Your task to perform on an android device: change your default location settings in chrome Image 0: 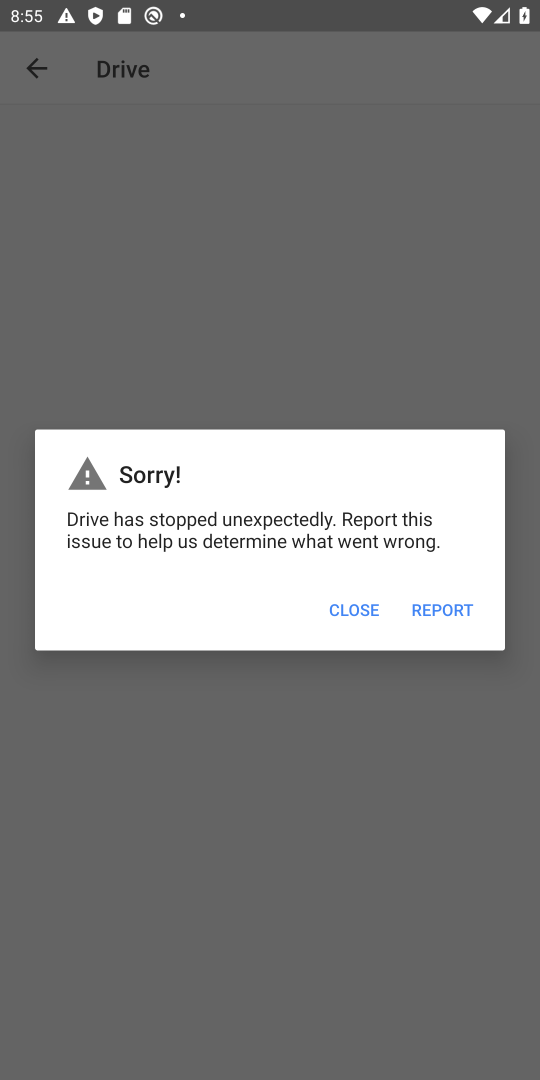
Step 0: press home button
Your task to perform on an android device: change your default location settings in chrome Image 1: 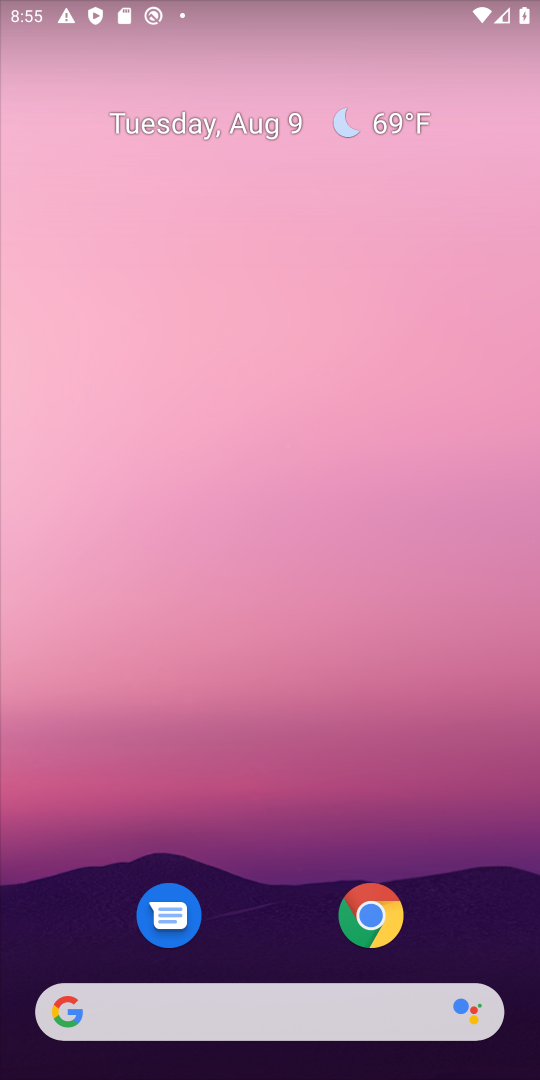
Step 1: click (382, 915)
Your task to perform on an android device: change your default location settings in chrome Image 2: 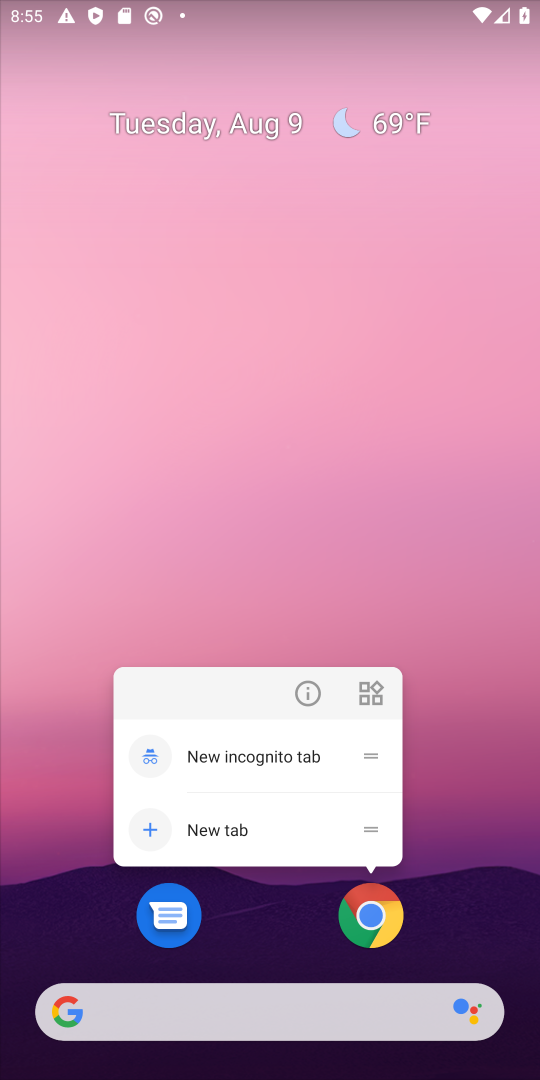
Step 2: click (315, 932)
Your task to perform on an android device: change your default location settings in chrome Image 3: 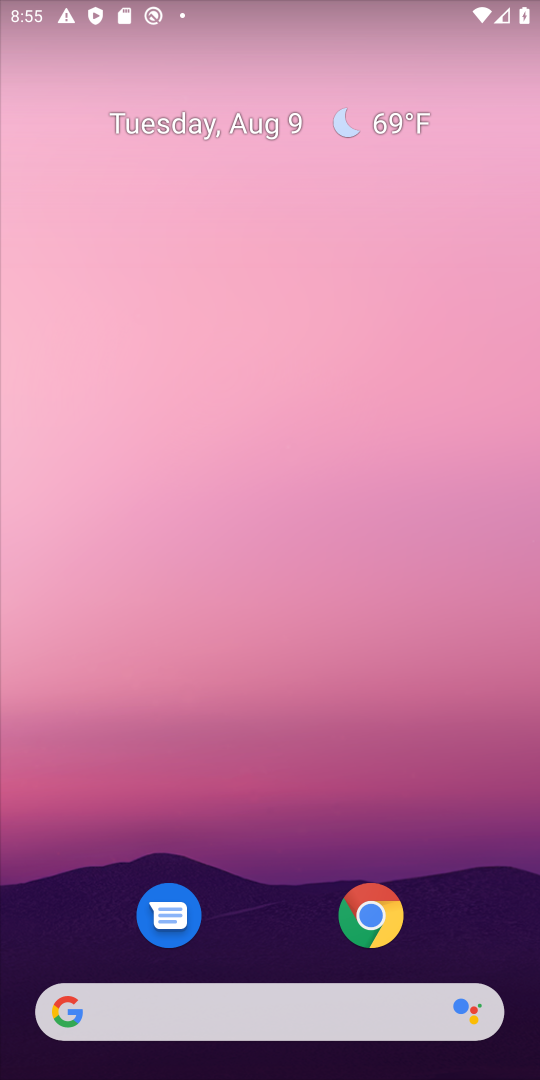
Step 3: click (357, 927)
Your task to perform on an android device: change your default location settings in chrome Image 4: 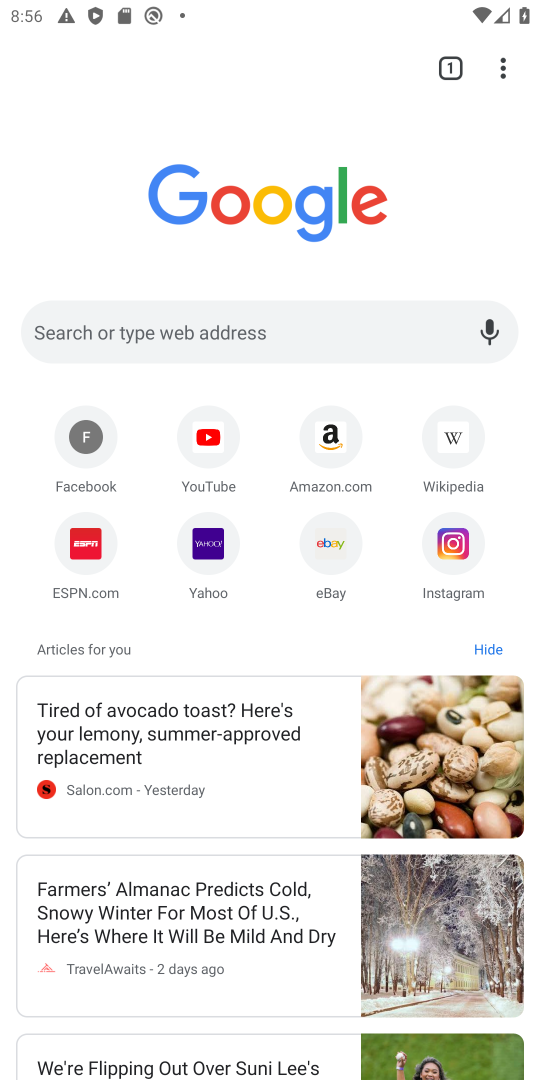
Step 4: click (501, 65)
Your task to perform on an android device: change your default location settings in chrome Image 5: 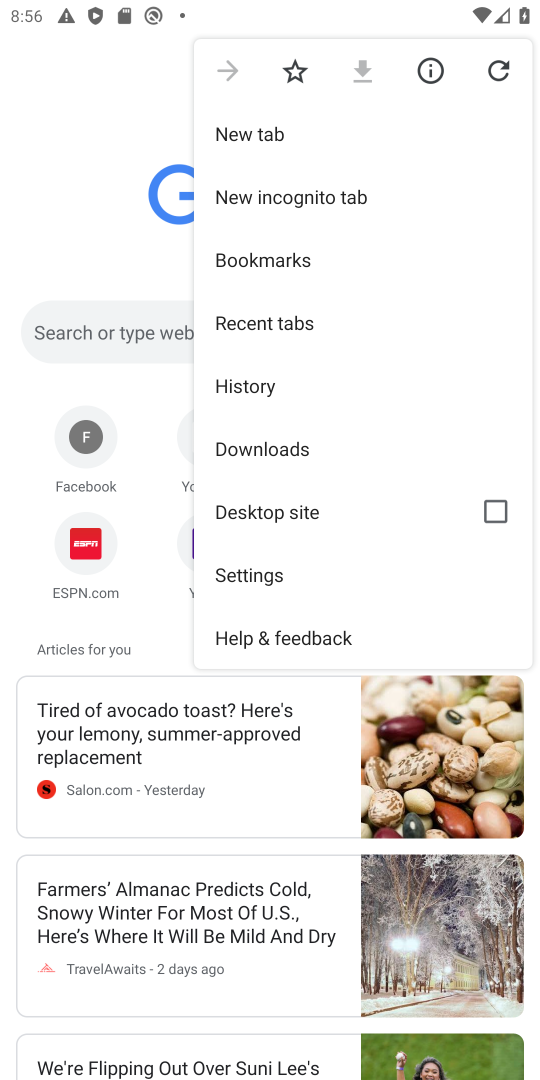
Step 5: click (223, 571)
Your task to perform on an android device: change your default location settings in chrome Image 6: 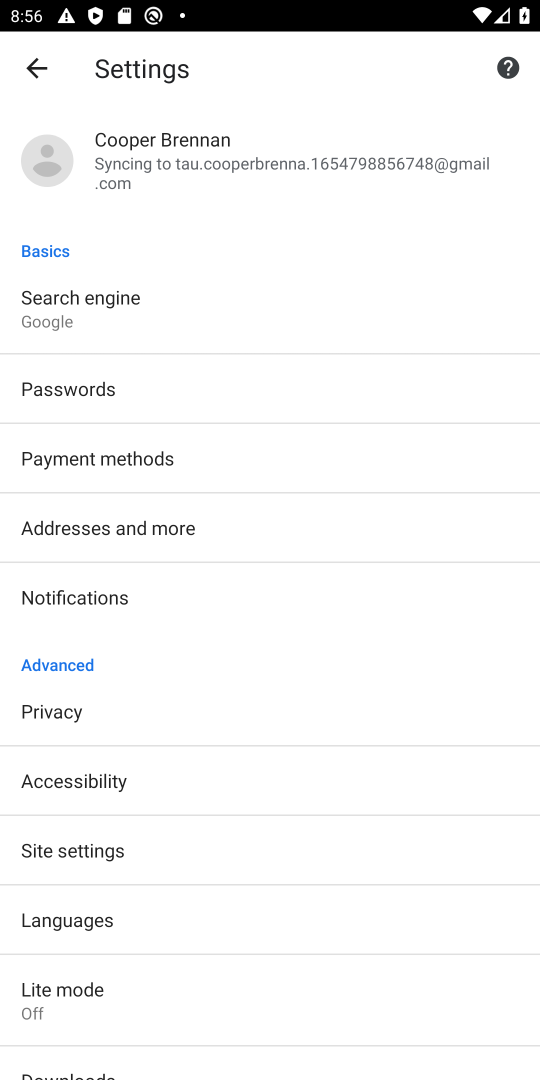
Step 6: drag from (208, 821) to (143, 411)
Your task to perform on an android device: change your default location settings in chrome Image 7: 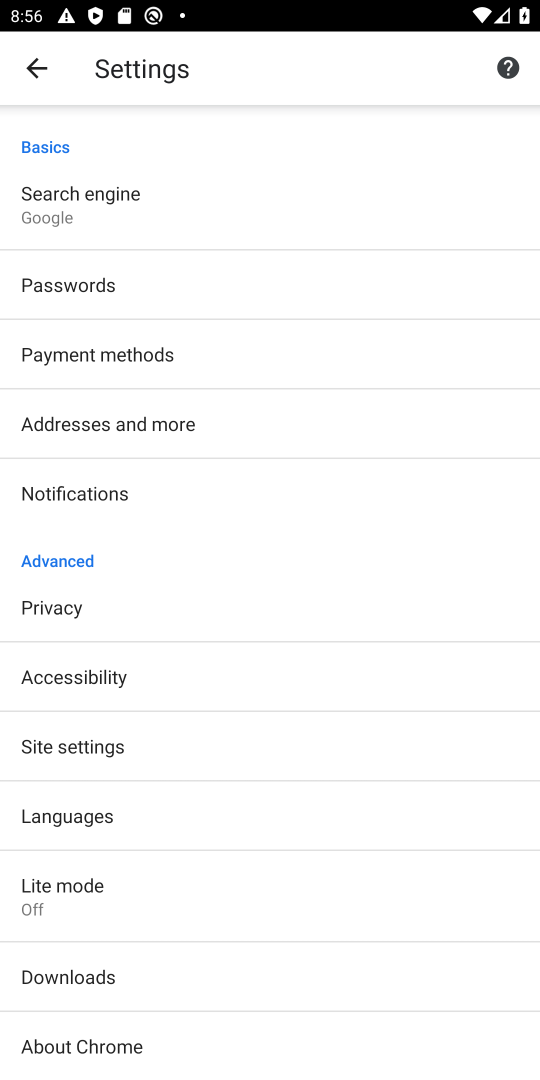
Step 7: click (75, 749)
Your task to perform on an android device: change your default location settings in chrome Image 8: 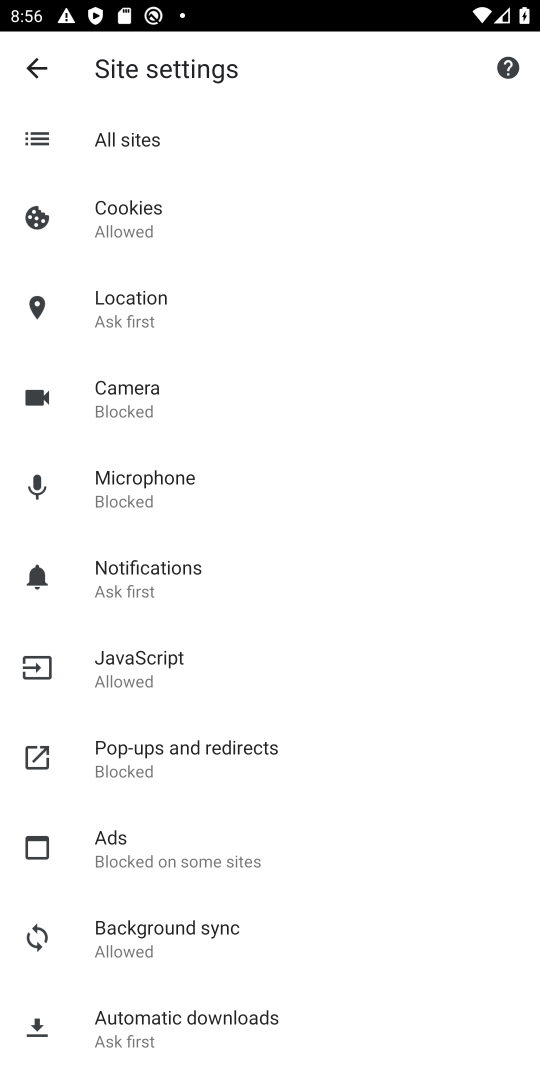
Step 8: drag from (180, 803) to (161, 356)
Your task to perform on an android device: change your default location settings in chrome Image 9: 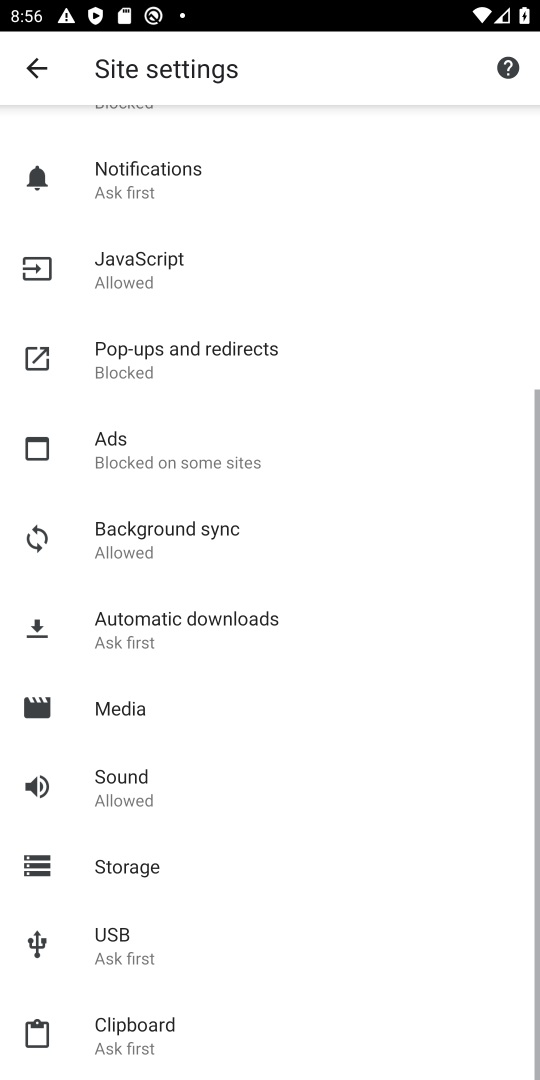
Step 9: drag from (160, 353) to (150, 297)
Your task to perform on an android device: change your default location settings in chrome Image 10: 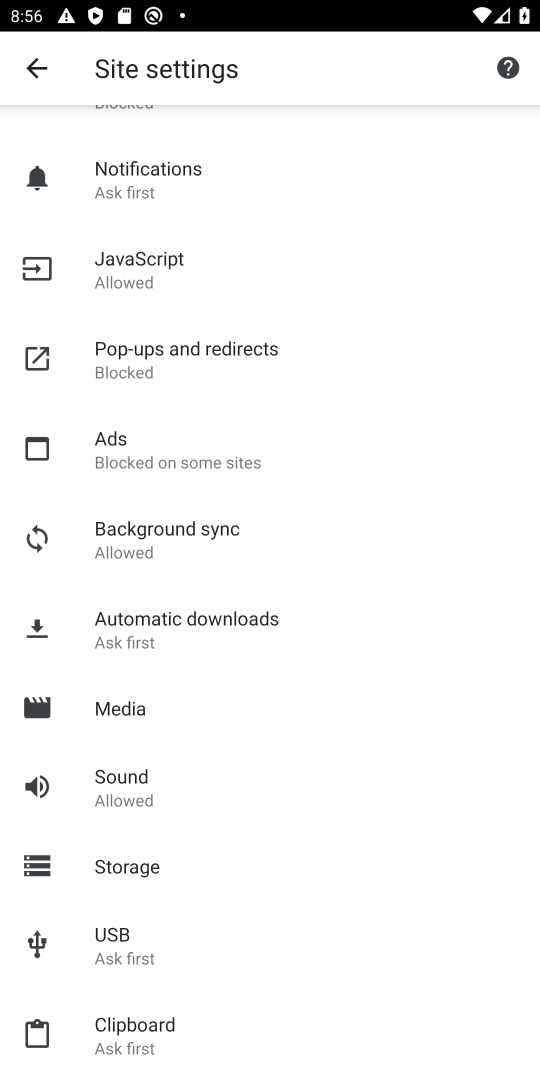
Step 10: drag from (246, 252) to (320, 545)
Your task to perform on an android device: change your default location settings in chrome Image 11: 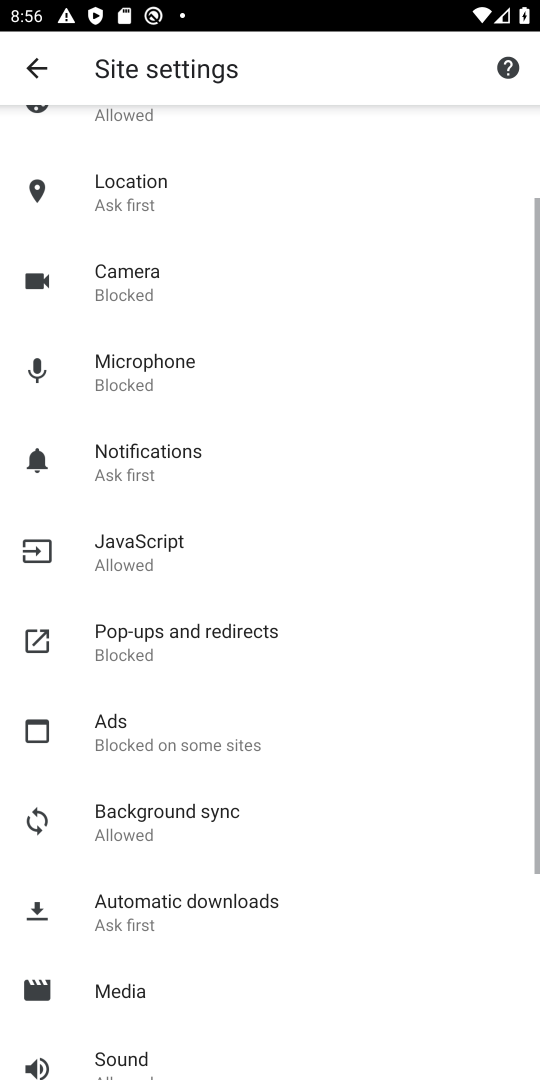
Step 11: drag from (297, 656) to (325, 861)
Your task to perform on an android device: change your default location settings in chrome Image 12: 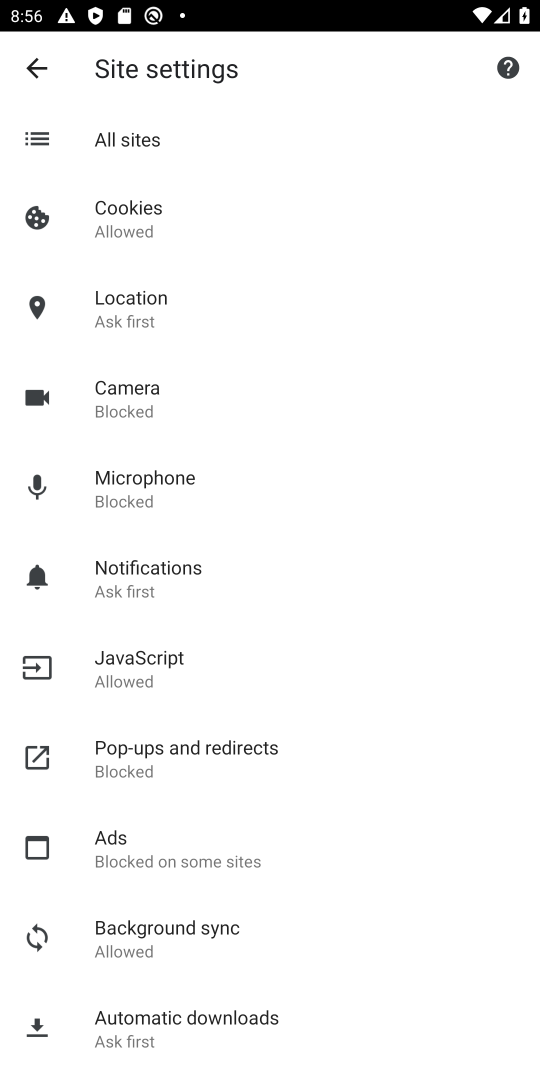
Step 12: click (144, 319)
Your task to perform on an android device: change your default location settings in chrome Image 13: 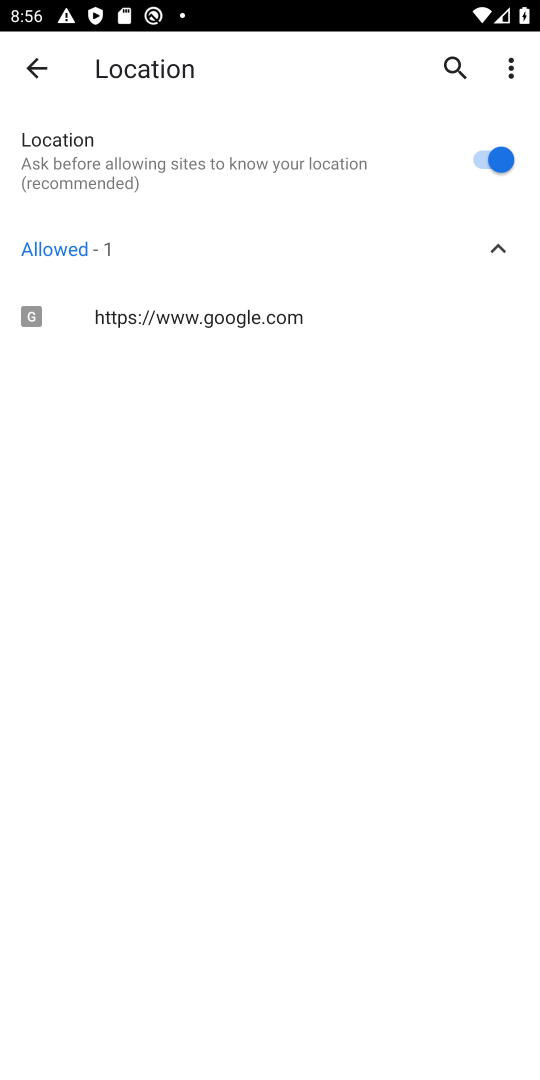
Step 13: click (512, 73)
Your task to perform on an android device: change your default location settings in chrome Image 14: 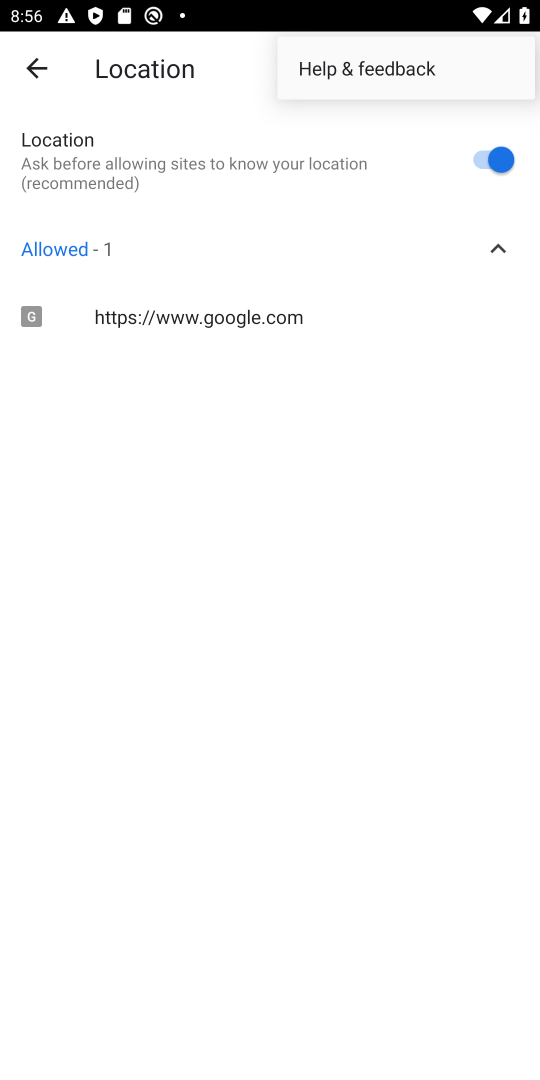
Step 14: click (418, 398)
Your task to perform on an android device: change your default location settings in chrome Image 15: 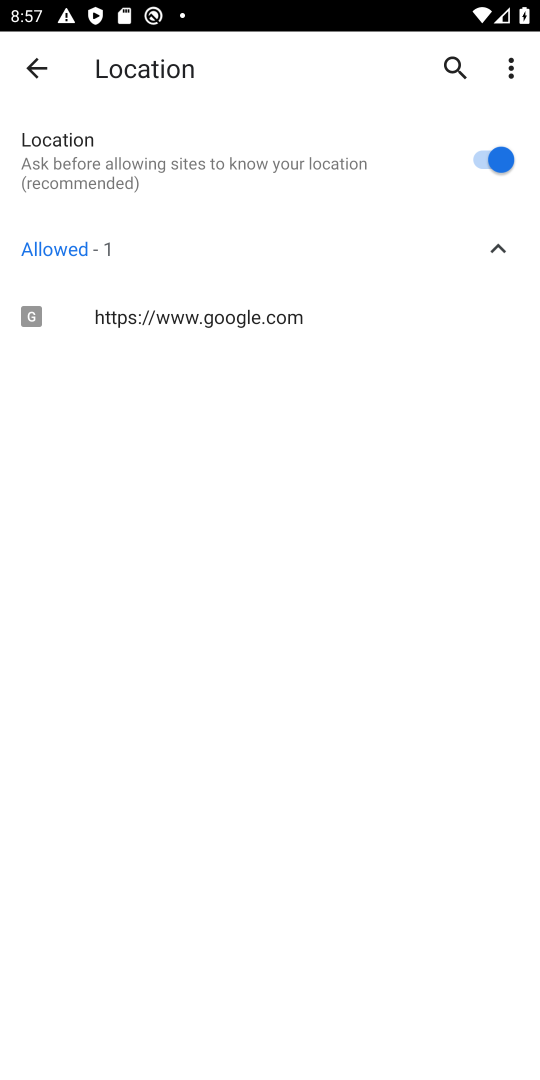
Step 15: click (498, 243)
Your task to perform on an android device: change your default location settings in chrome Image 16: 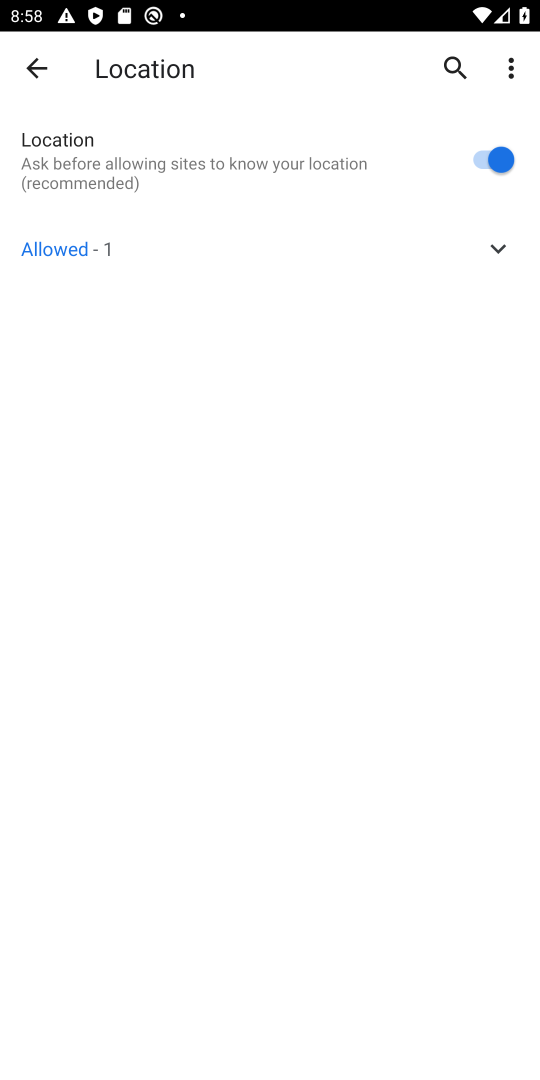
Step 16: task complete